Your task to perform on an android device: turn on bluetooth scan Image 0: 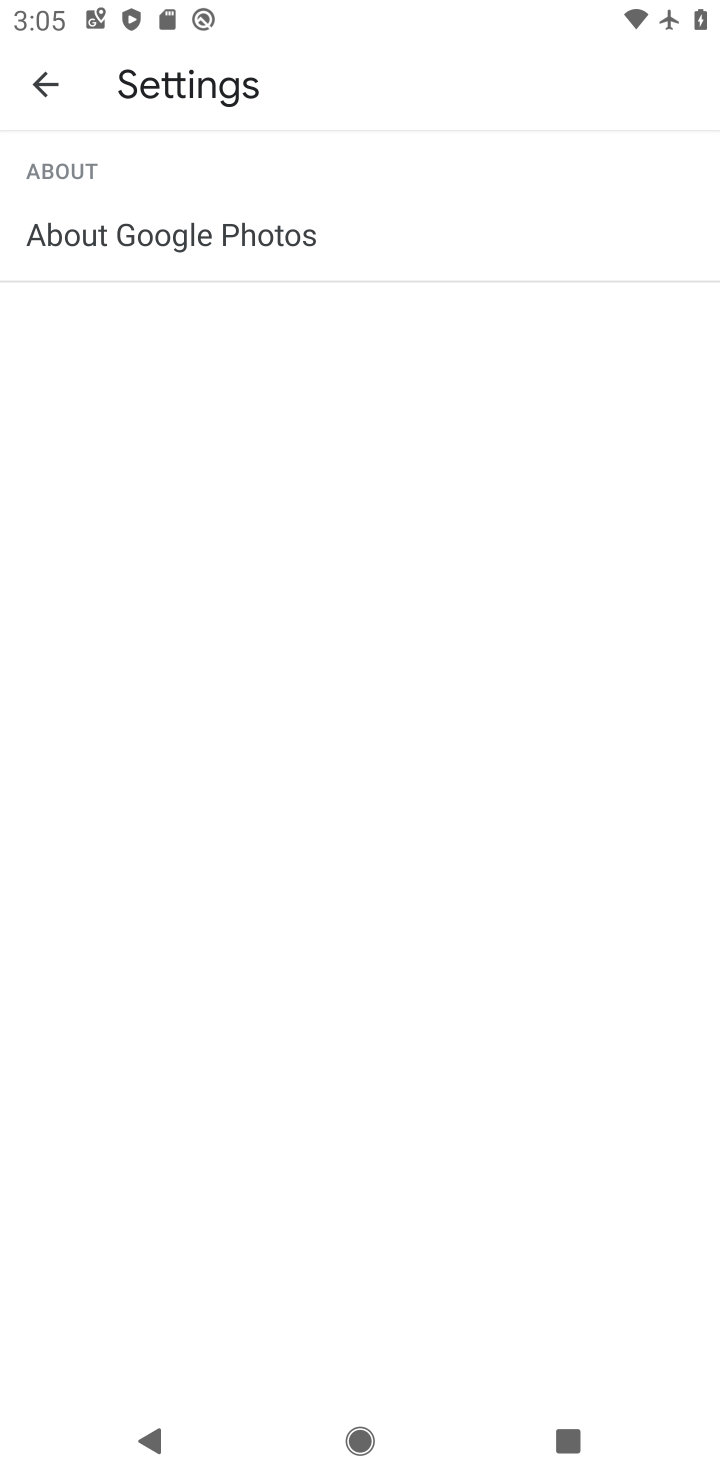
Step 0: press home button
Your task to perform on an android device: turn on bluetooth scan Image 1: 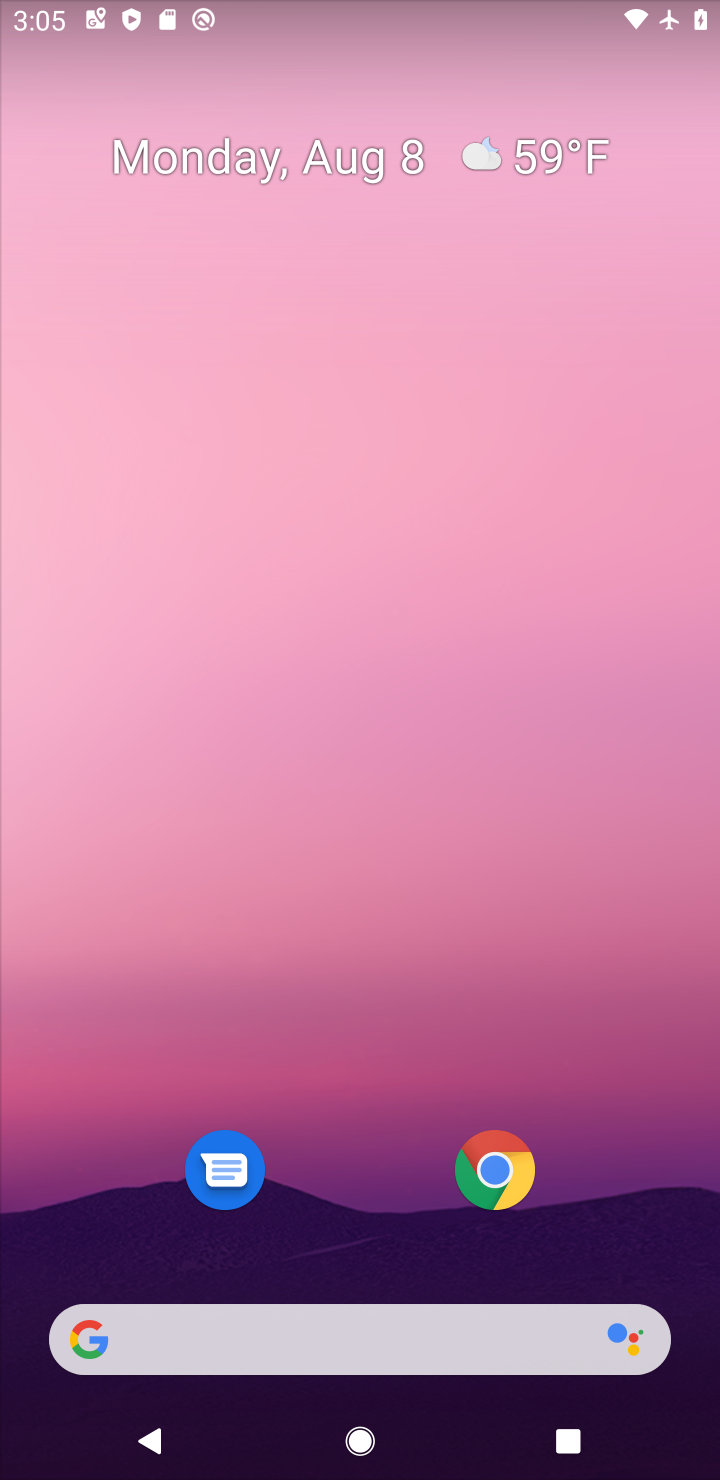
Step 1: drag from (367, 1175) to (364, 599)
Your task to perform on an android device: turn on bluetooth scan Image 2: 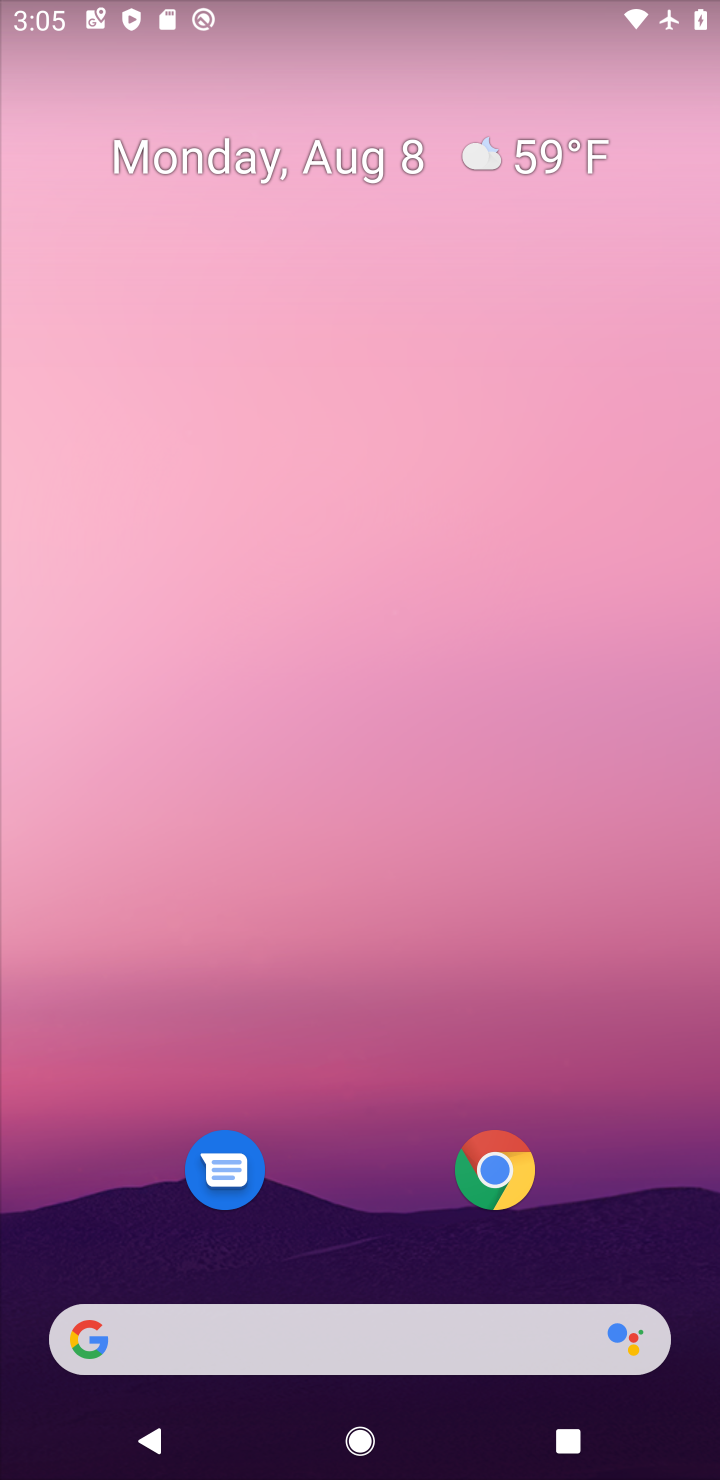
Step 2: drag from (348, 1180) to (326, 361)
Your task to perform on an android device: turn on bluetooth scan Image 3: 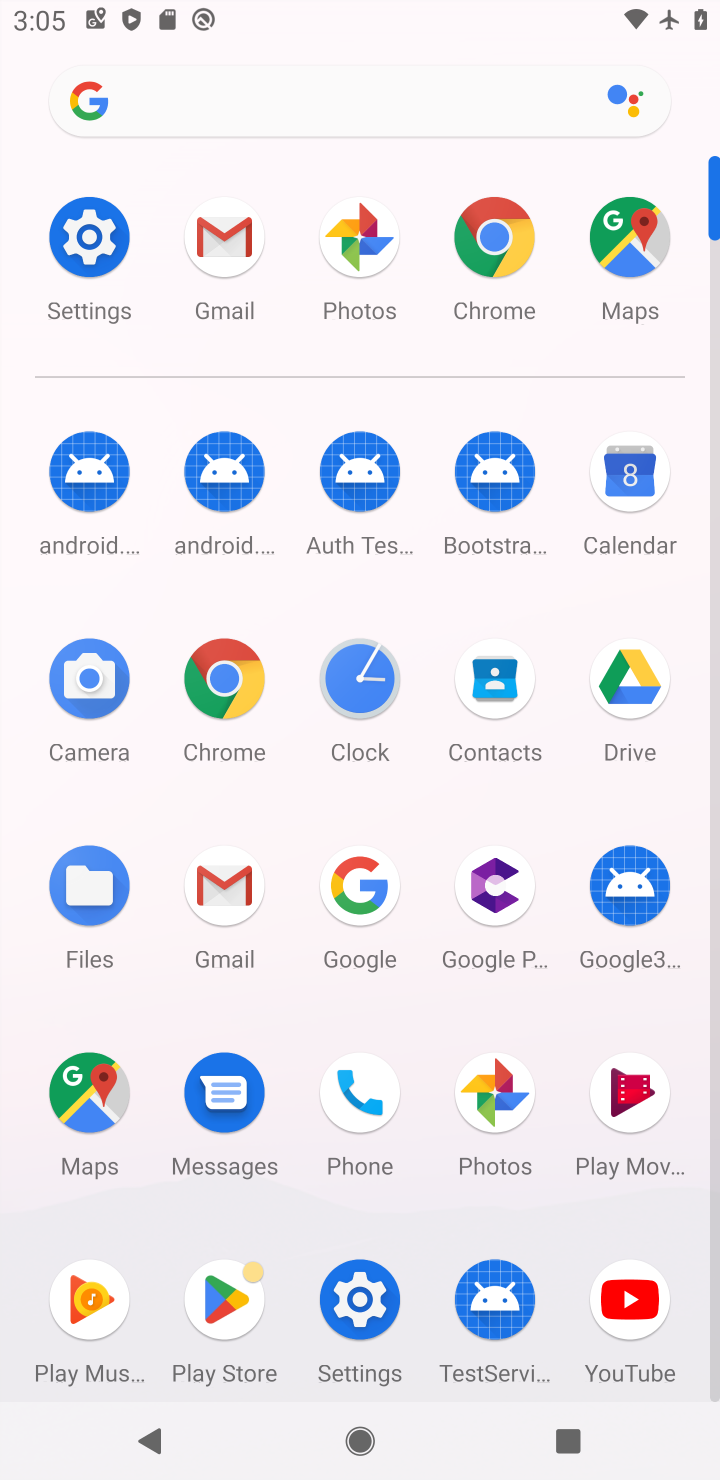
Step 3: click (71, 238)
Your task to perform on an android device: turn on bluetooth scan Image 4: 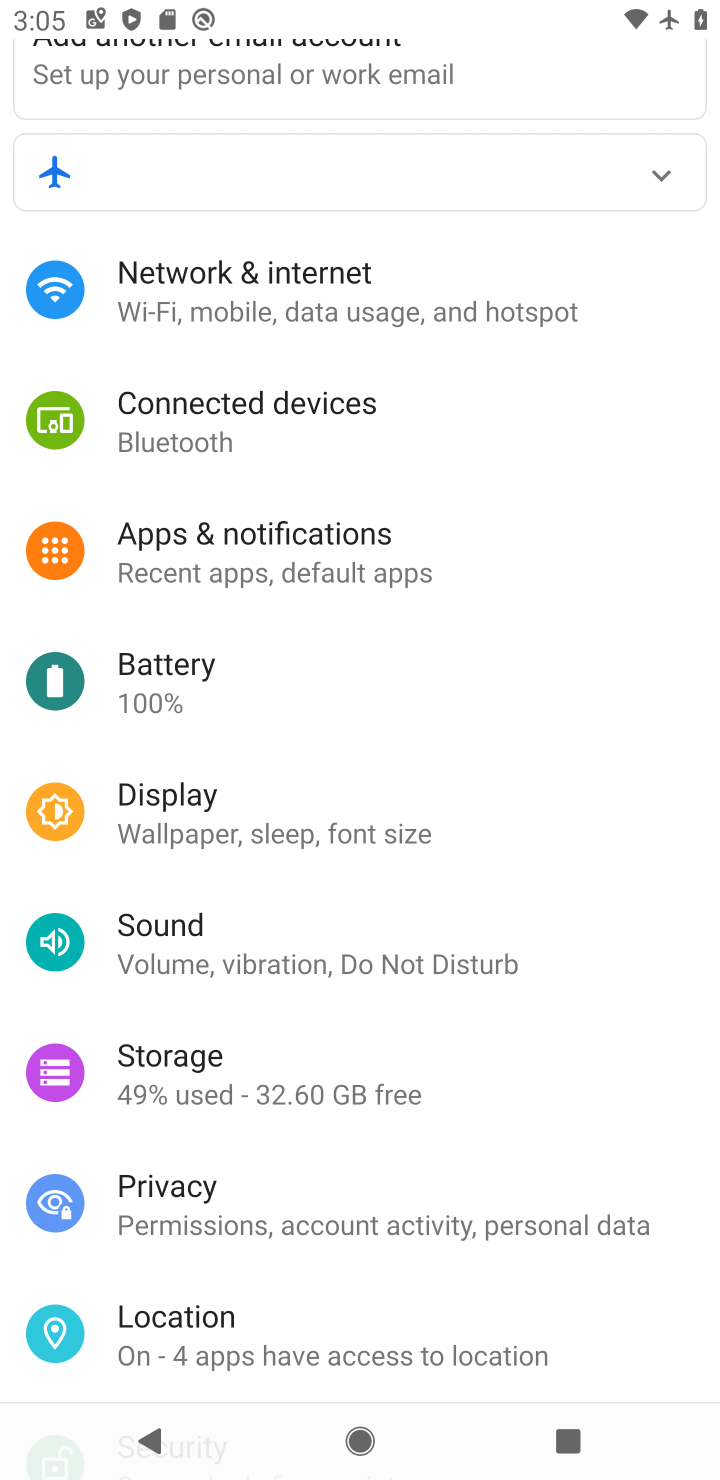
Step 4: click (295, 1315)
Your task to perform on an android device: turn on bluetooth scan Image 5: 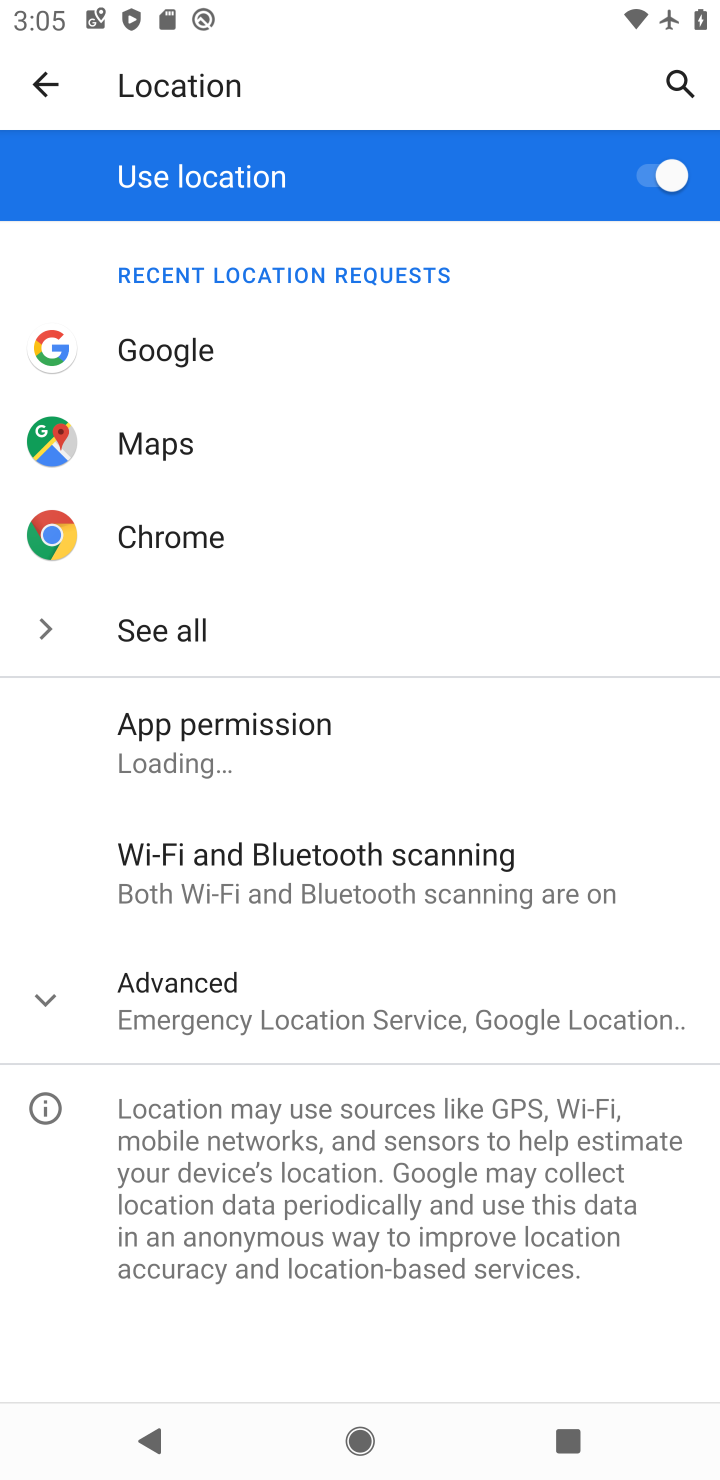
Step 5: click (296, 920)
Your task to perform on an android device: turn on bluetooth scan Image 6: 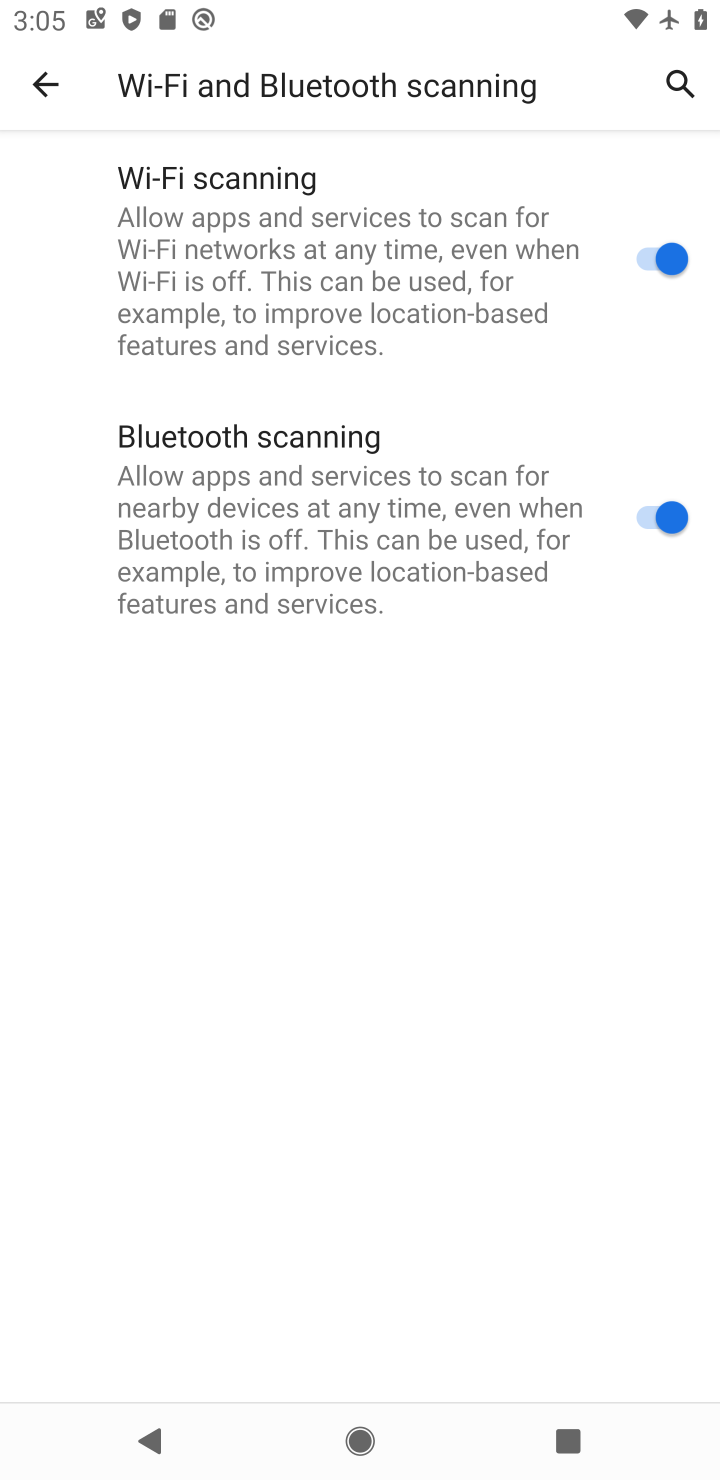
Step 6: task complete